Your task to perform on an android device: Turn off the flashlight Image 0: 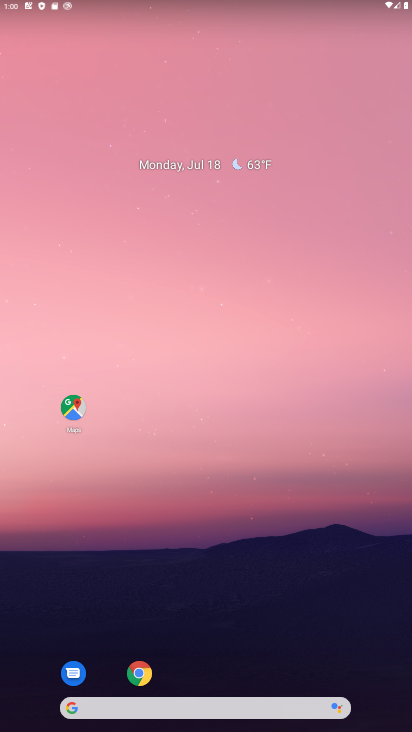
Step 0: drag from (273, 640) to (238, 240)
Your task to perform on an android device: Turn off the flashlight Image 1: 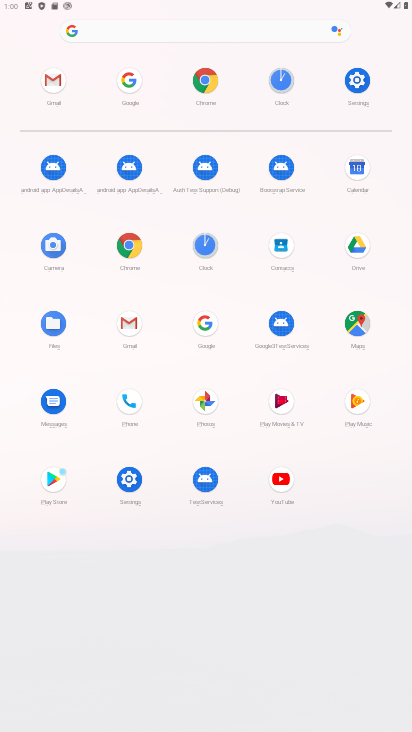
Step 1: click (356, 69)
Your task to perform on an android device: Turn off the flashlight Image 2: 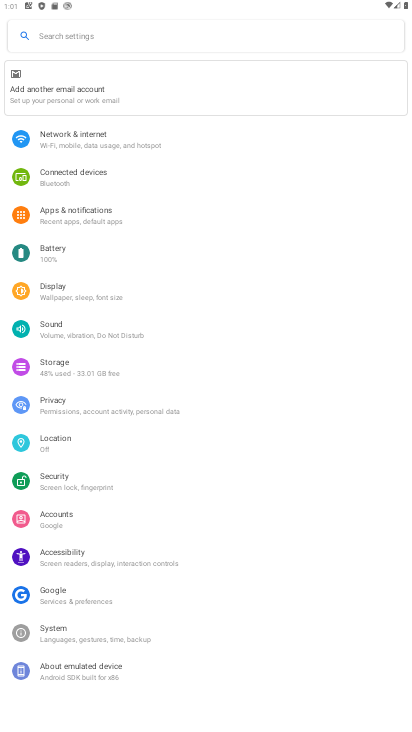
Step 2: task complete